Your task to perform on an android device: change timer sound Image 0: 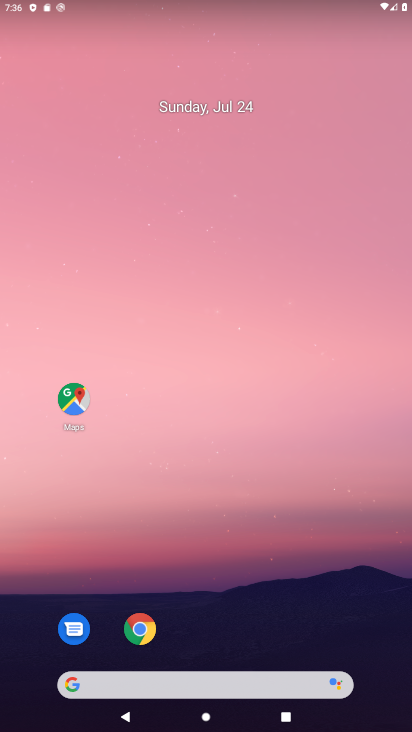
Step 0: drag from (165, 670) to (263, 105)
Your task to perform on an android device: change timer sound Image 1: 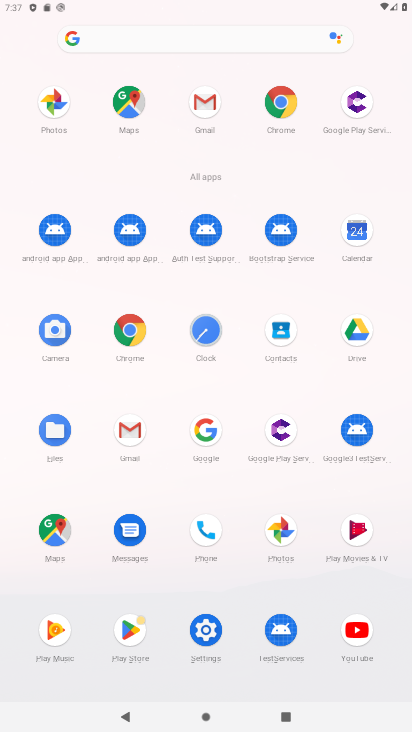
Step 1: click (201, 307)
Your task to perform on an android device: change timer sound Image 2: 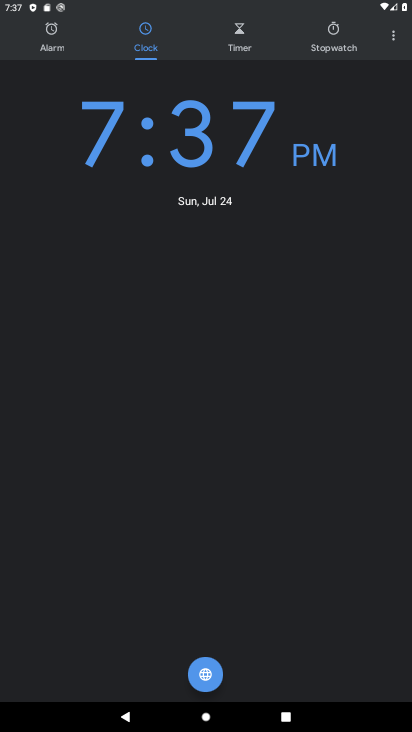
Step 2: click (396, 43)
Your task to perform on an android device: change timer sound Image 3: 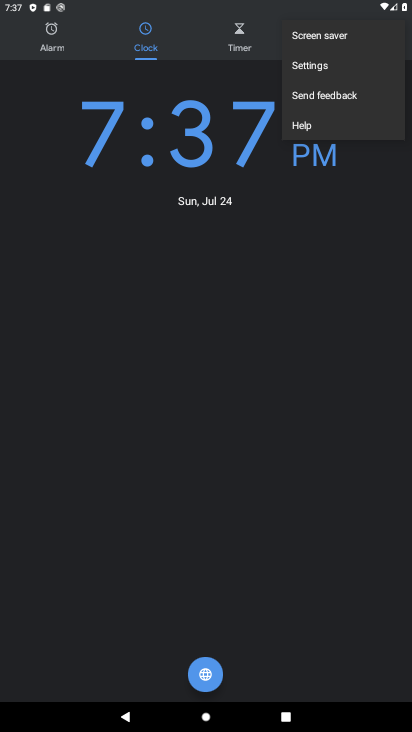
Step 3: click (320, 64)
Your task to perform on an android device: change timer sound Image 4: 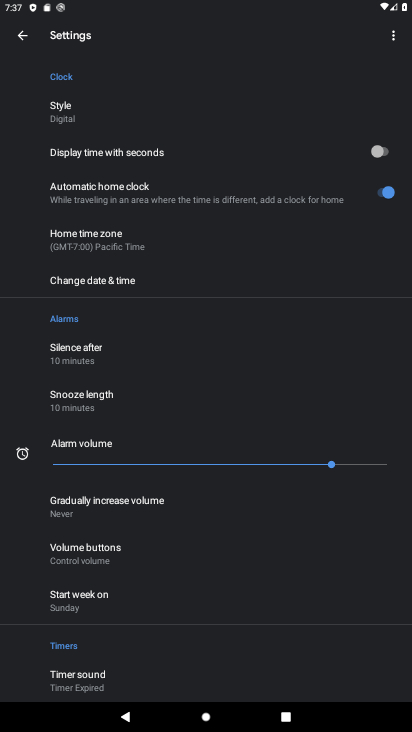
Step 4: click (102, 684)
Your task to perform on an android device: change timer sound Image 5: 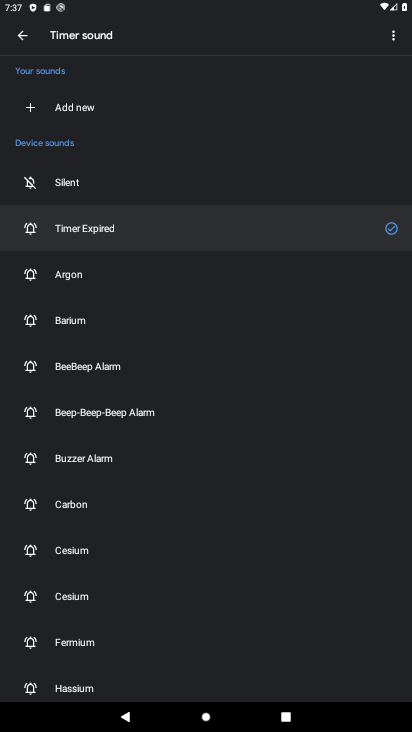
Step 5: click (278, 282)
Your task to perform on an android device: change timer sound Image 6: 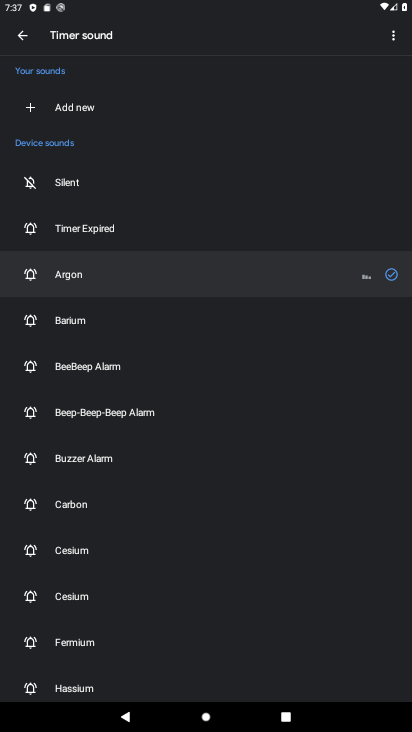
Step 6: task complete